Your task to perform on an android device: move a message to another label in the gmail app Image 0: 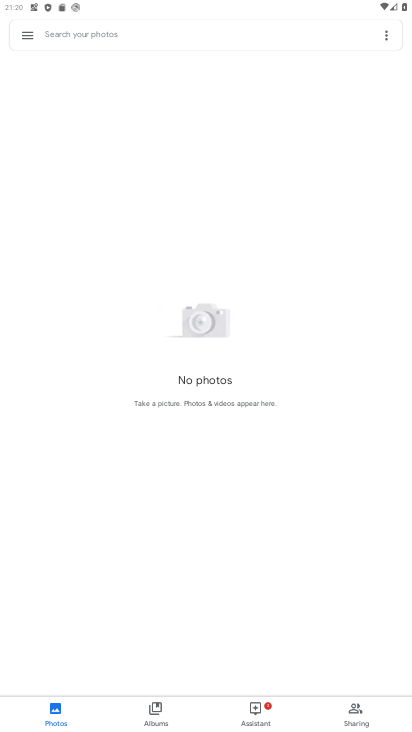
Step 0: press home button
Your task to perform on an android device: move a message to another label in the gmail app Image 1: 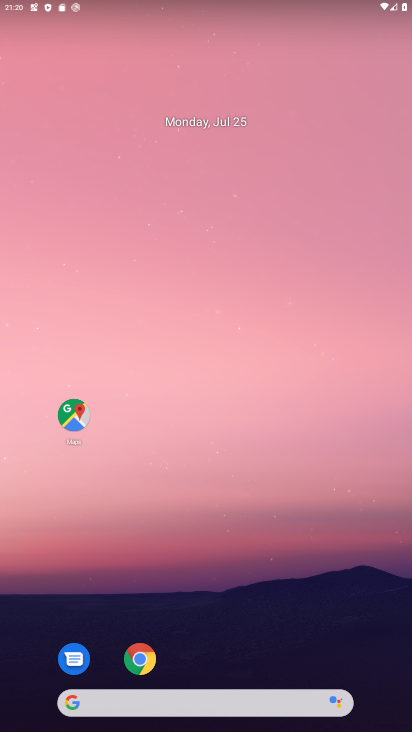
Step 1: drag from (217, 658) to (335, 111)
Your task to perform on an android device: move a message to another label in the gmail app Image 2: 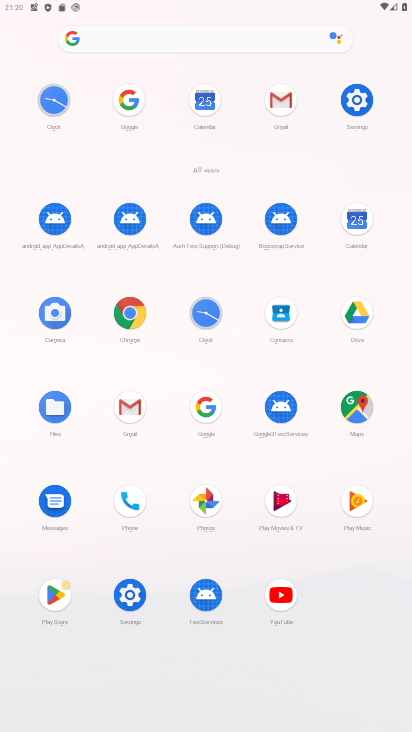
Step 2: click (263, 109)
Your task to perform on an android device: move a message to another label in the gmail app Image 3: 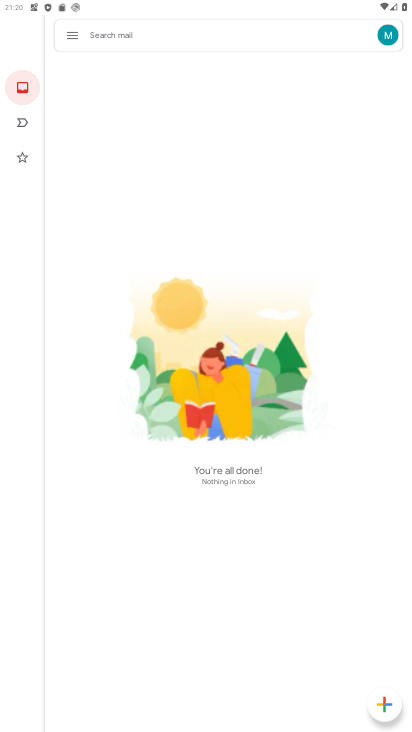
Step 3: click (81, 34)
Your task to perform on an android device: move a message to another label in the gmail app Image 4: 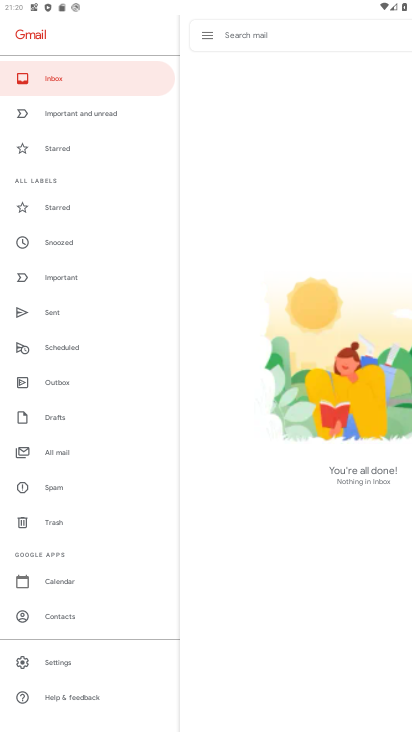
Step 4: click (81, 443)
Your task to perform on an android device: move a message to another label in the gmail app Image 5: 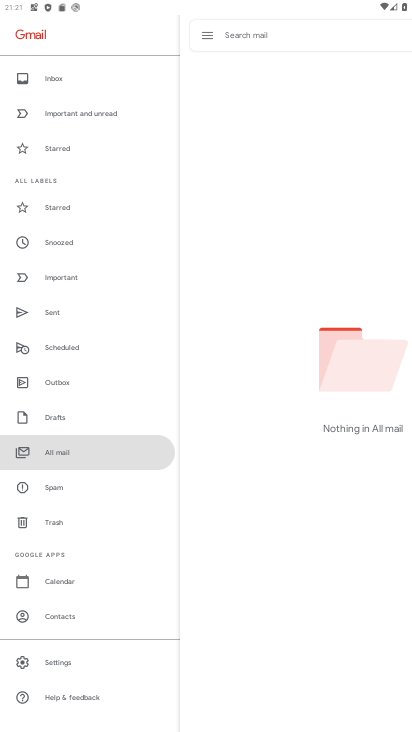
Step 5: task complete